Your task to perform on an android device: install app "Etsy: Buy & Sell Unique Items" Image 0: 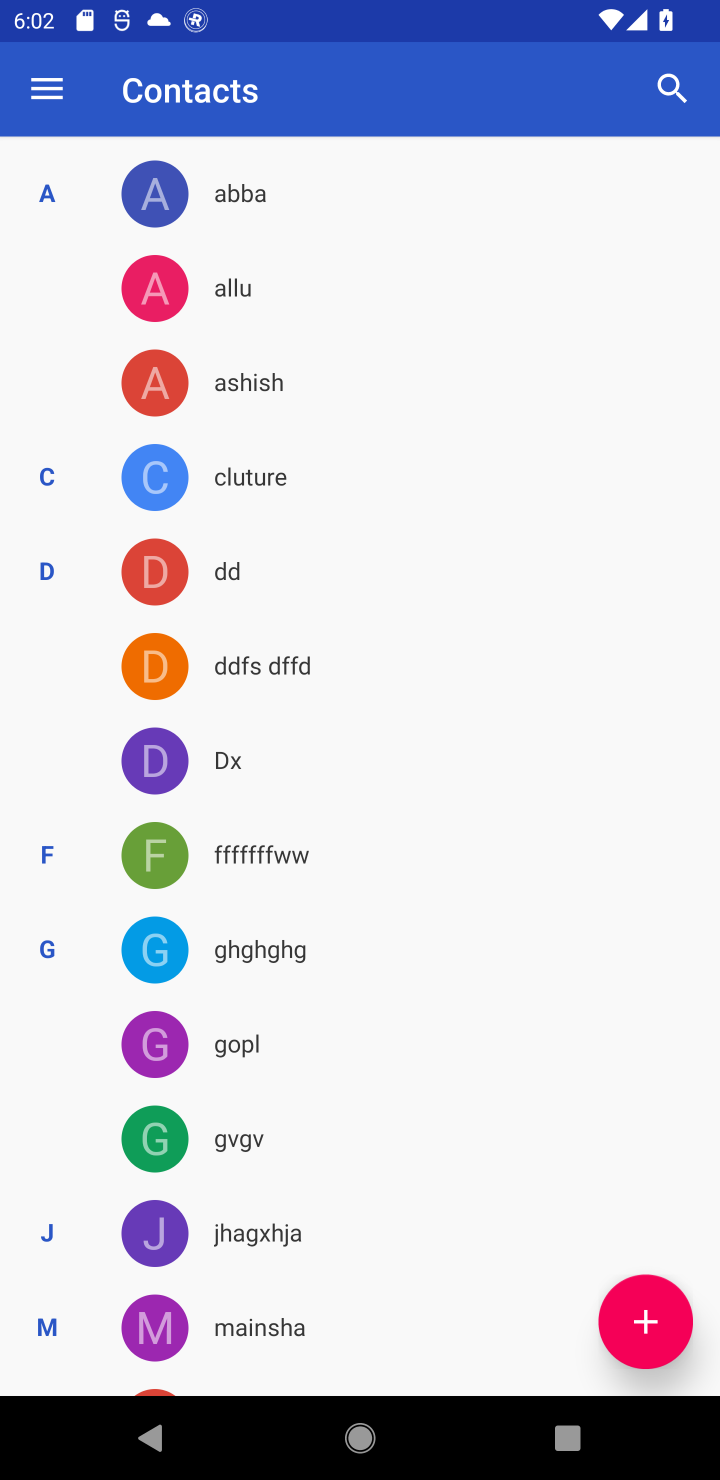
Step 0: task impossible